Your task to perform on an android device: open app "YouTube Kids" (install if not already installed) Image 0: 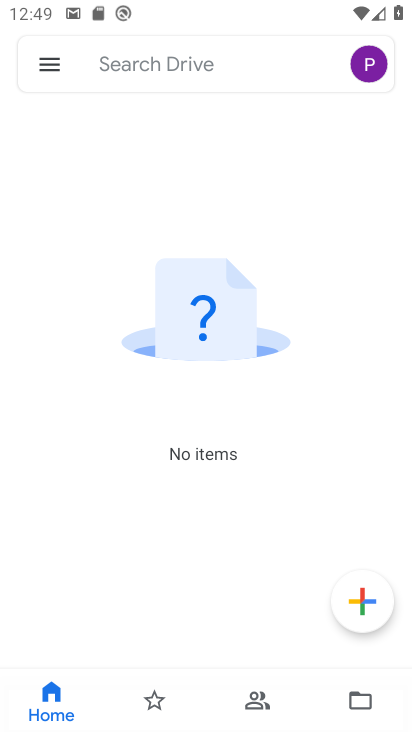
Step 0: press home button
Your task to perform on an android device: open app "YouTube Kids" (install if not already installed) Image 1: 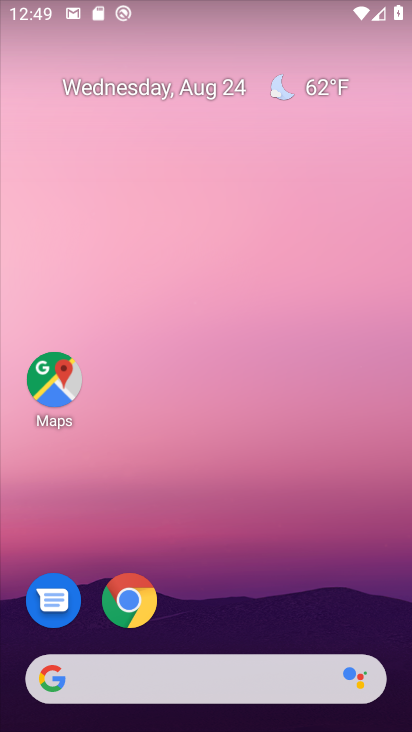
Step 1: drag from (215, 644) to (205, 111)
Your task to perform on an android device: open app "YouTube Kids" (install if not already installed) Image 2: 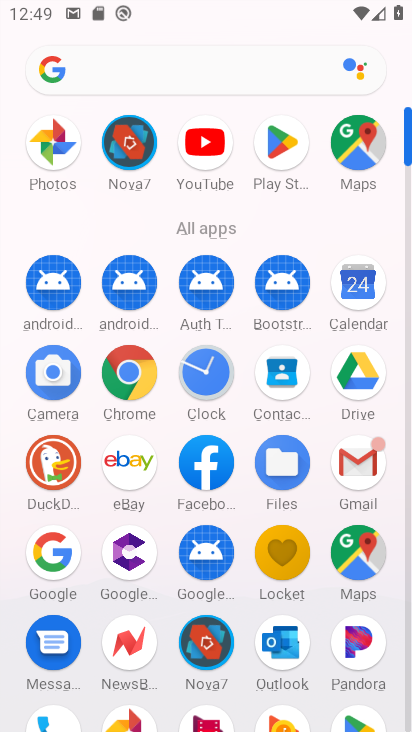
Step 2: click (264, 160)
Your task to perform on an android device: open app "YouTube Kids" (install if not already installed) Image 3: 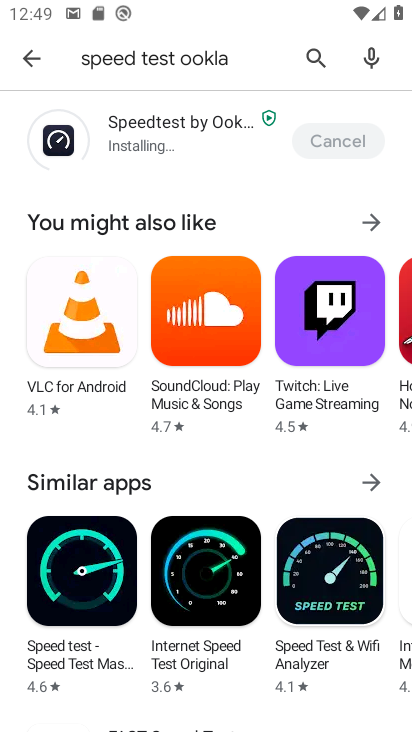
Step 3: click (325, 66)
Your task to perform on an android device: open app "YouTube Kids" (install if not already installed) Image 4: 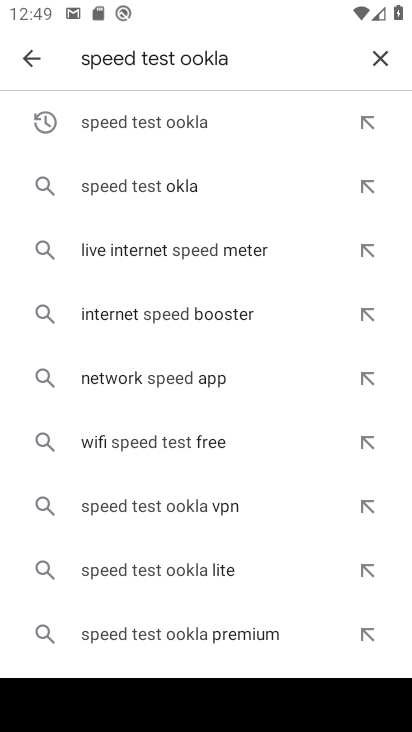
Step 4: click (380, 66)
Your task to perform on an android device: open app "YouTube Kids" (install if not already installed) Image 5: 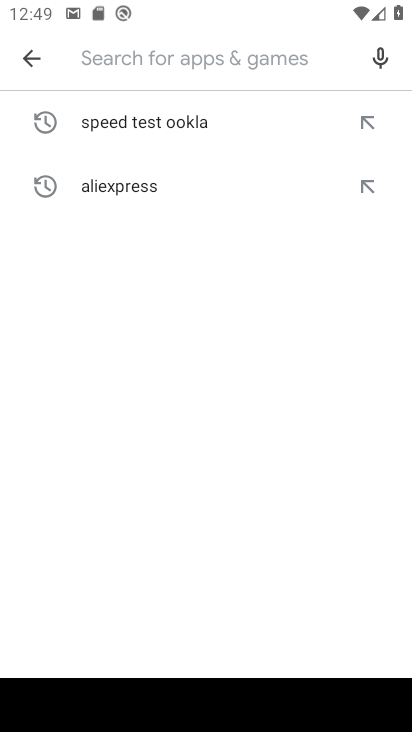
Step 5: type "youtube kid"
Your task to perform on an android device: open app "YouTube Kids" (install if not already installed) Image 6: 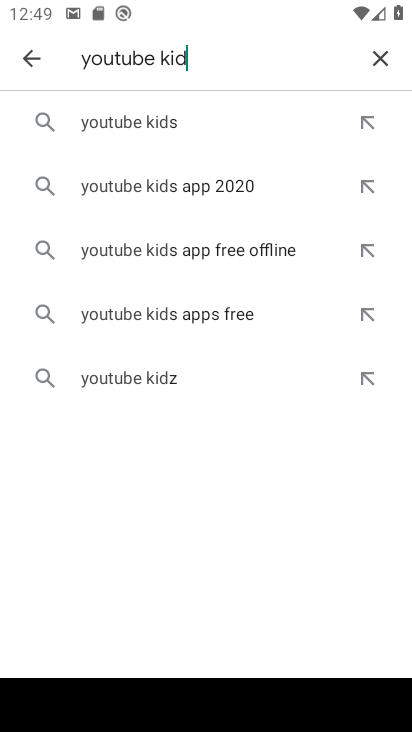
Step 6: click (236, 143)
Your task to perform on an android device: open app "YouTube Kids" (install if not already installed) Image 7: 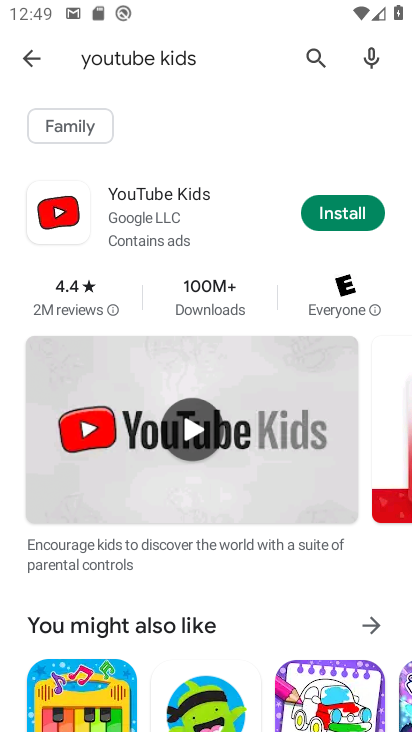
Step 7: click (346, 219)
Your task to perform on an android device: open app "YouTube Kids" (install if not already installed) Image 8: 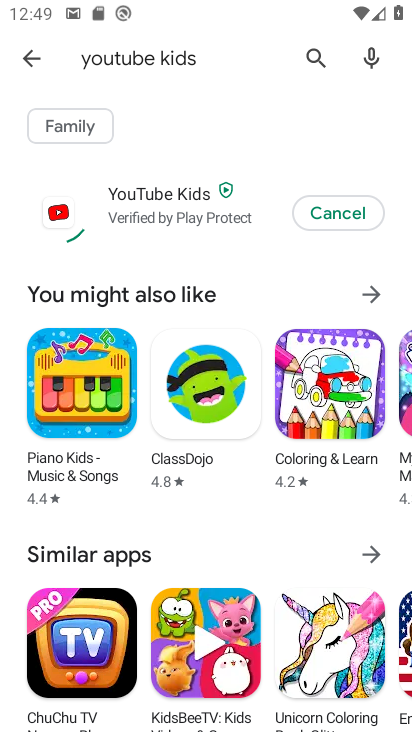
Step 8: task complete